Your task to perform on an android device: open a new tab in the chrome app Image 0: 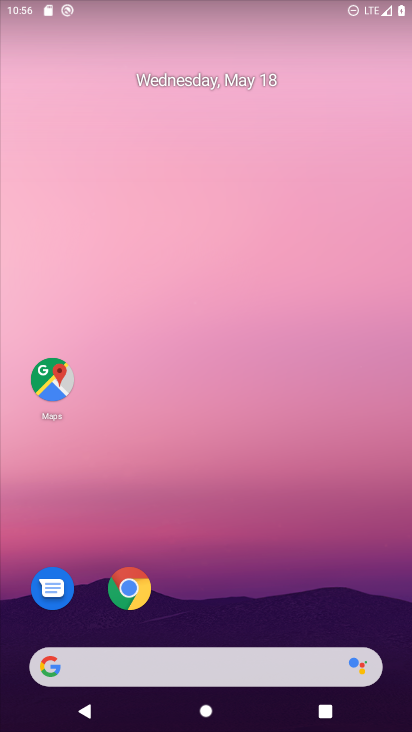
Step 0: click (138, 589)
Your task to perform on an android device: open a new tab in the chrome app Image 1: 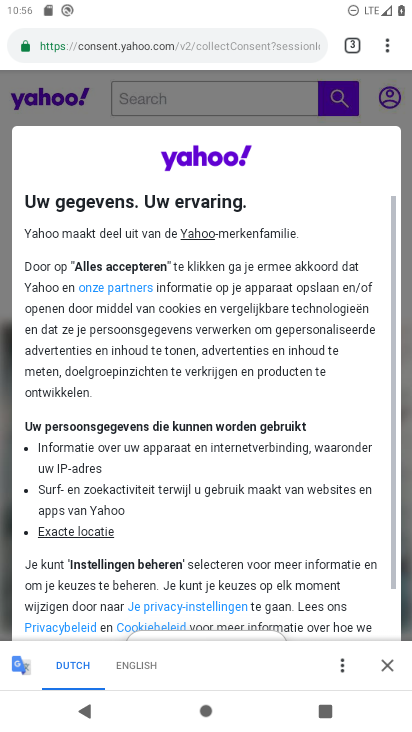
Step 1: click (390, 41)
Your task to perform on an android device: open a new tab in the chrome app Image 2: 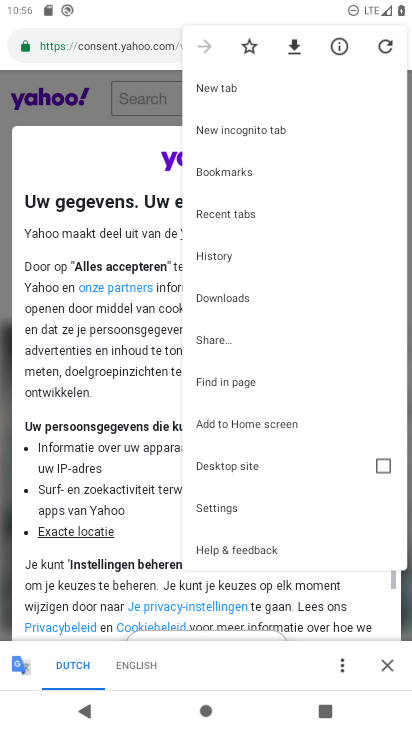
Step 2: click (224, 84)
Your task to perform on an android device: open a new tab in the chrome app Image 3: 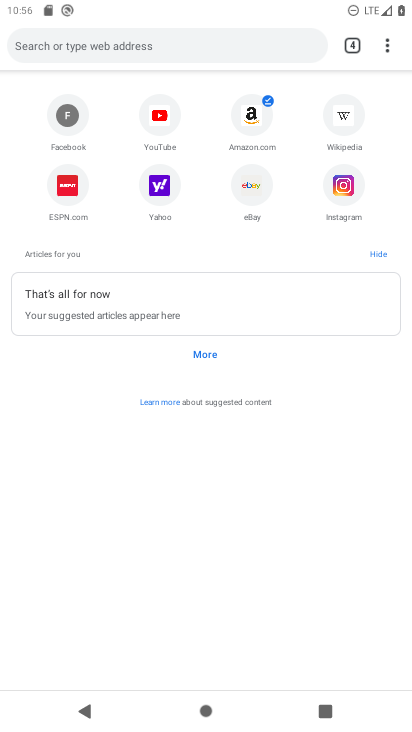
Step 3: task complete